Your task to perform on an android device: turn off sleep mode Image 0: 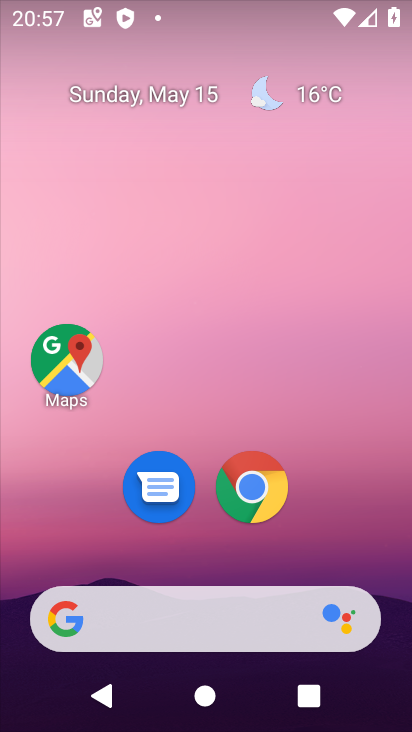
Step 0: drag from (402, 658) to (405, 286)
Your task to perform on an android device: turn off sleep mode Image 1: 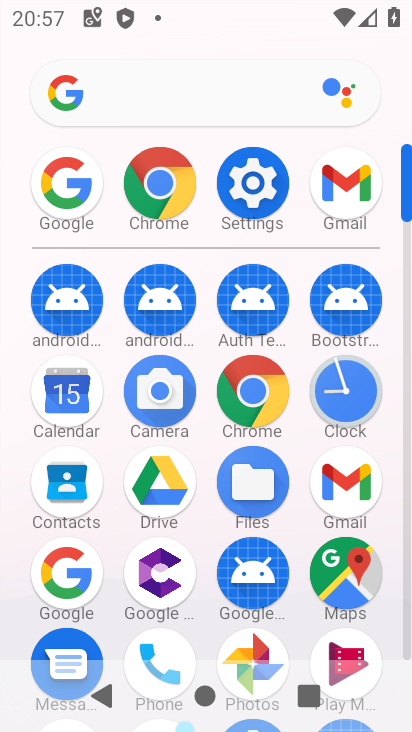
Step 1: click (255, 175)
Your task to perform on an android device: turn off sleep mode Image 2: 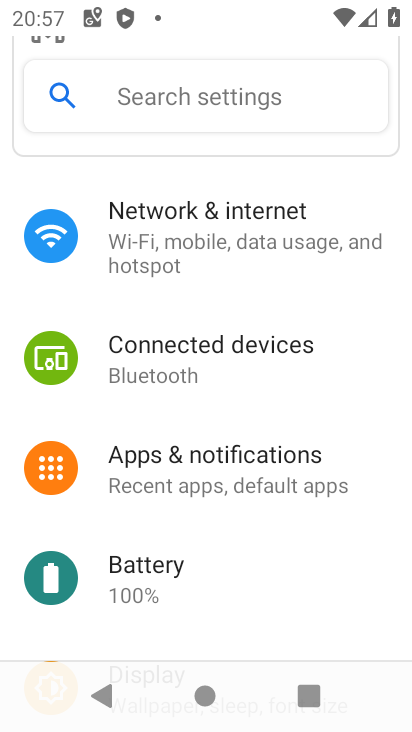
Step 2: drag from (374, 616) to (373, 365)
Your task to perform on an android device: turn off sleep mode Image 3: 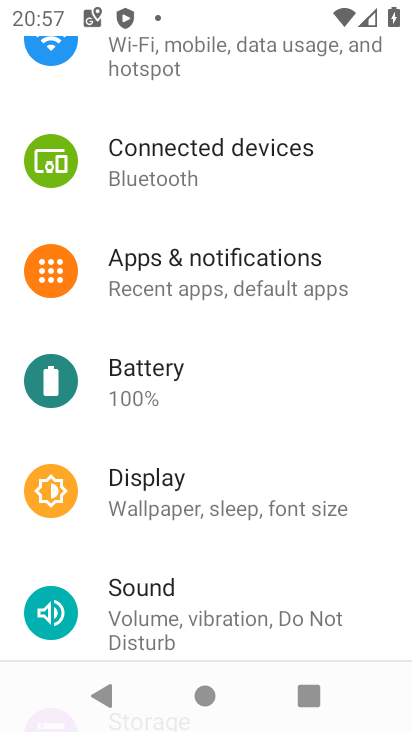
Step 3: drag from (389, 582) to (378, 329)
Your task to perform on an android device: turn off sleep mode Image 4: 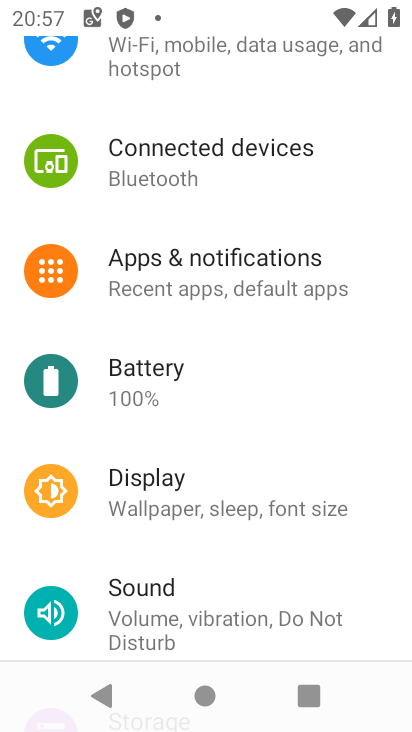
Step 4: drag from (381, 633) to (356, 370)
Your task to perform on an android device: turn off sleep mode Image 5: 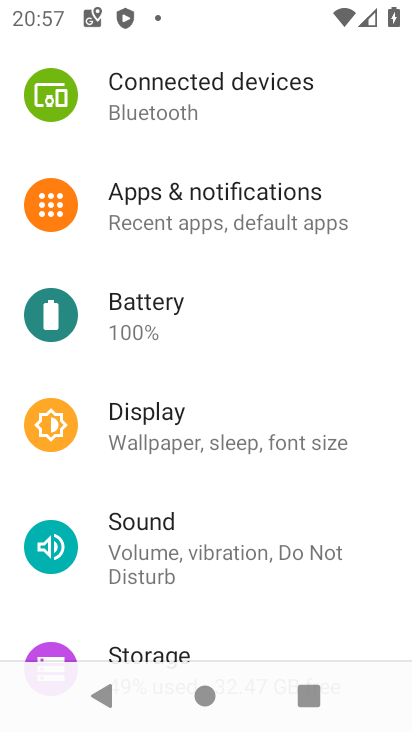
Step 5: drag from (387, 624) to (385, 264)
Your task to perform on an android device: turn off sleep mode Image 6: 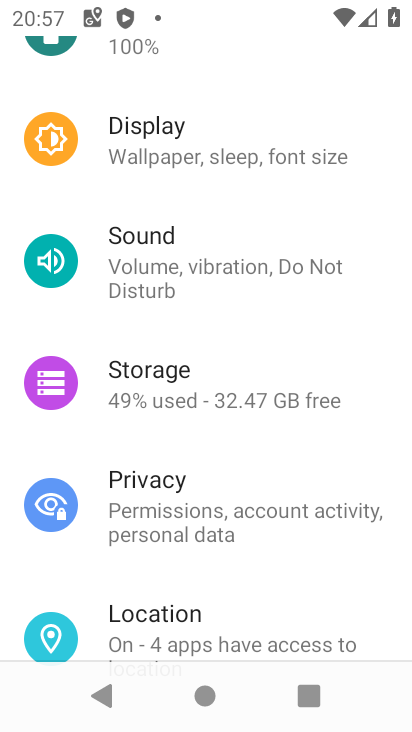
Step 6: click (160, 148)
Your task to perform on an android device: turn off sleep mode Image 7: 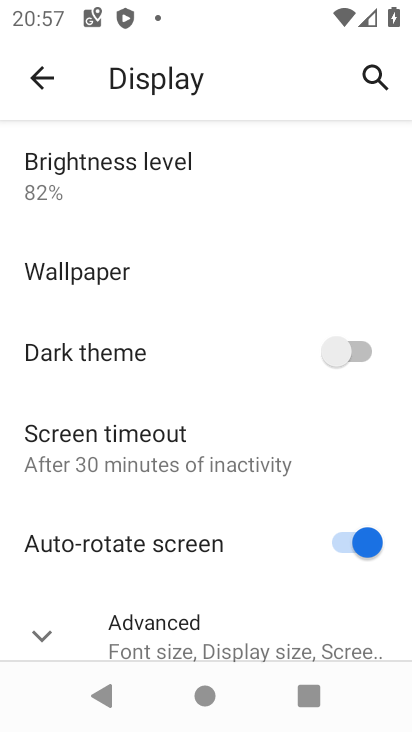
Step 7: click (112, 457)
Your task to perform on an android device: turn off sleep mode Image 8: 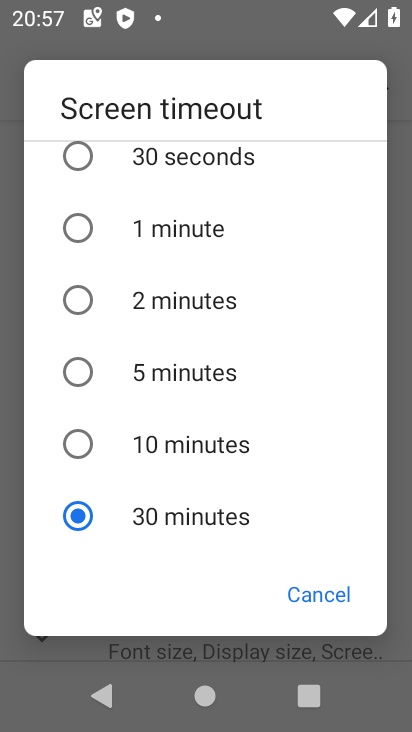
Step 8: task complete